Your task to perform on an android device: Open calendar and show me the fourth week of next month Image 0: 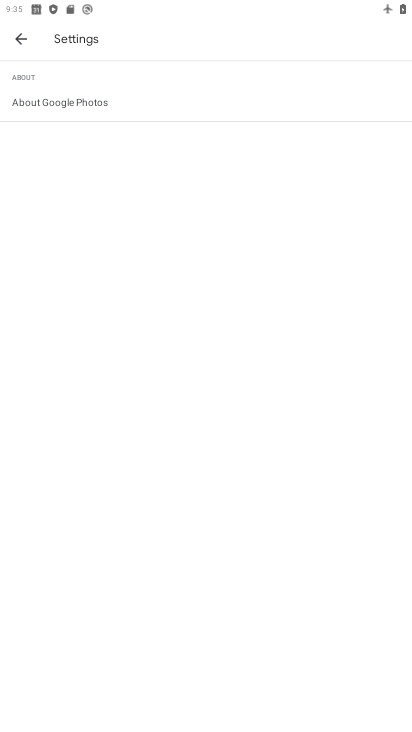
Step 0: press home button
Your task to perform on an android device: Open calendar and show me the fourth week of next month Image 1: 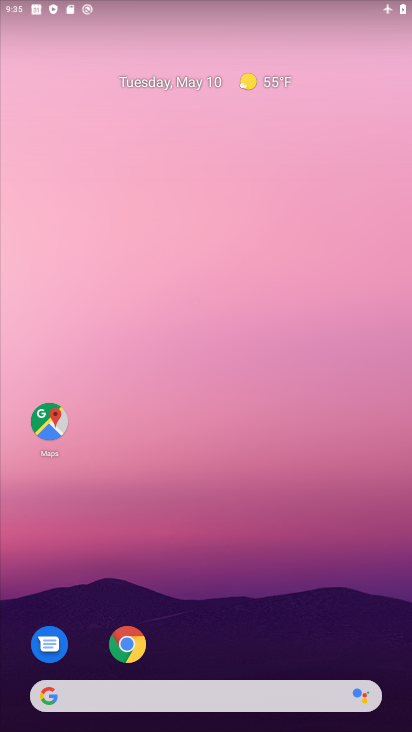
Step 1: drag from (235, 610) to (191, 195)
Your task to perform on an android device: Open calendar and show me the fourth week of next month Image 2: 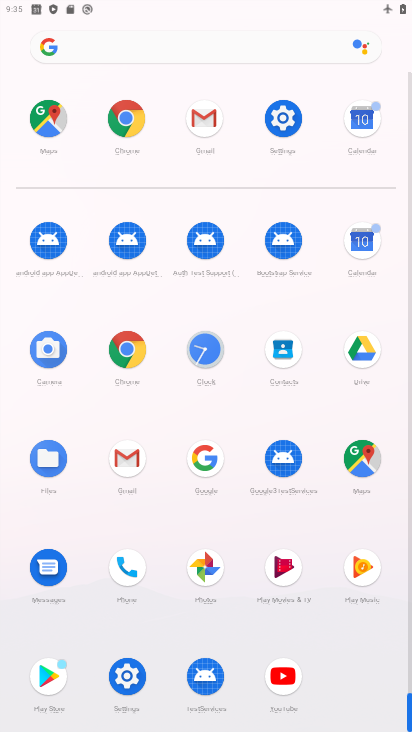
Step 2: click (361, 257)
Your task to perform on an android device: Open calendar and show me the fourth week of next month Image 3: 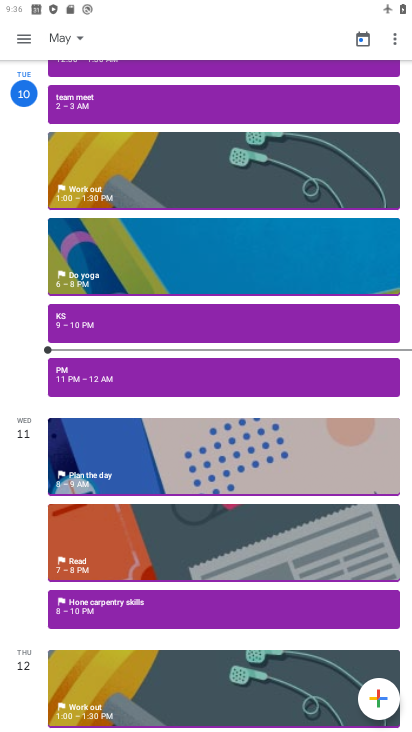
Step 3: click (78, 36)
Your task to perform on an android device: Open calendar and show me the fourth week of next month Image 4: 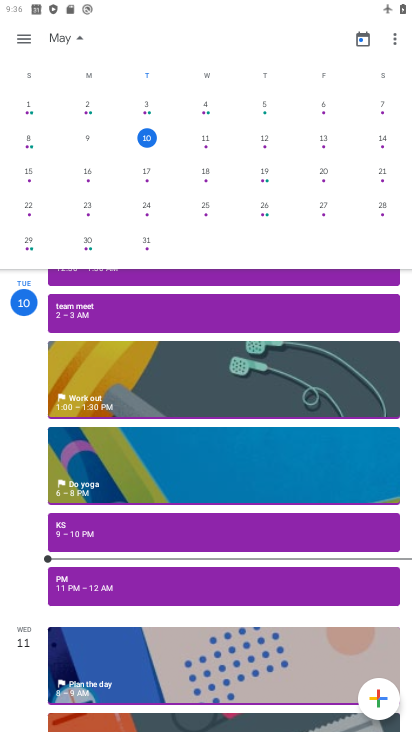
Step 4: drag from (365, 142) to (3, 208)
Your task to perform on an android device: Open calendar and show me the fourth week of next month Image 5: 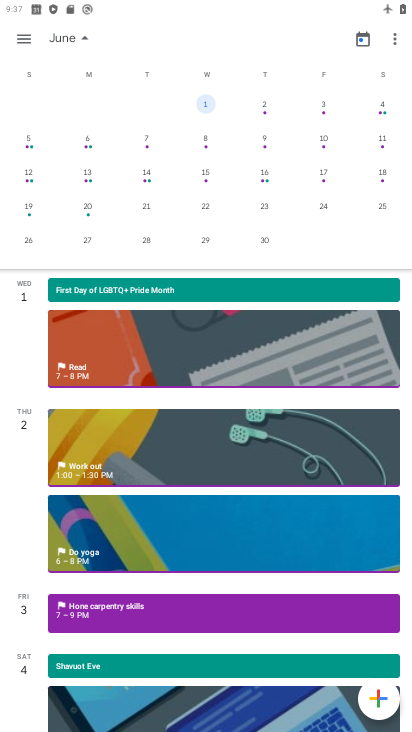
Step 5: click (37, 243)
Your task to perform on an android device: Open calendar and show me the fourth week of next month Image 6: 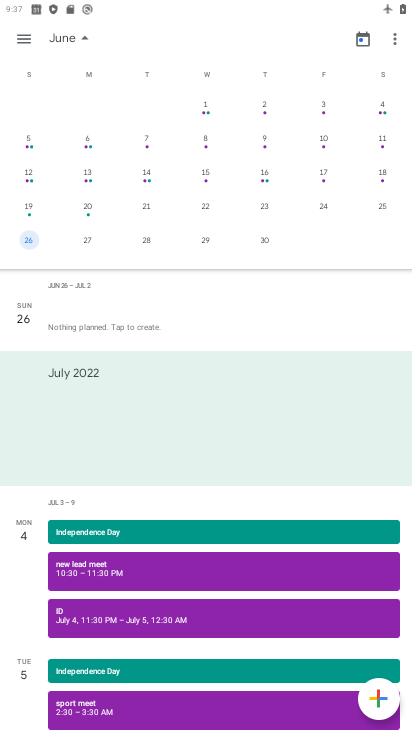
Step 6: task complete